Your task to perform on an android device: What's the weather today? Image 0: 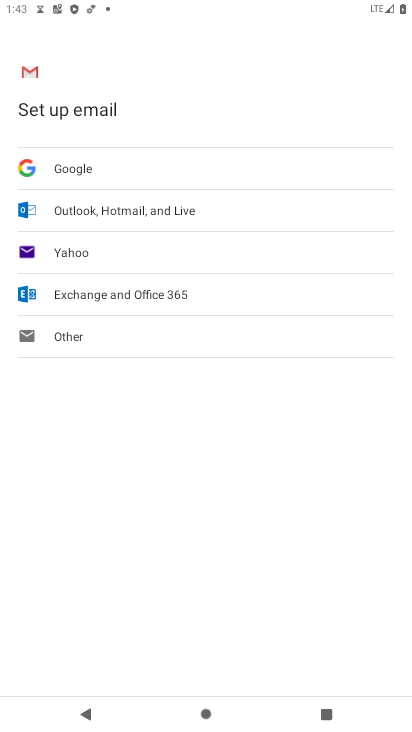
Step 0: press home button
Your task to perform on an android device: What's the weather today? Image 1: 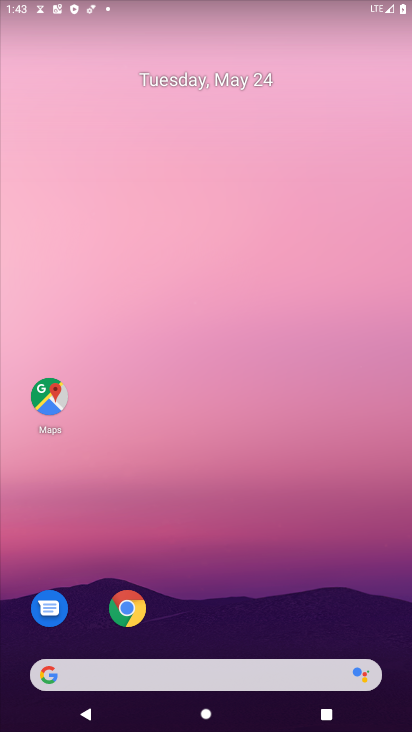
Step 1: drag from (239, 630) to (229, 157)
Your task to perform on an android device: What's the weather today? Image 2: 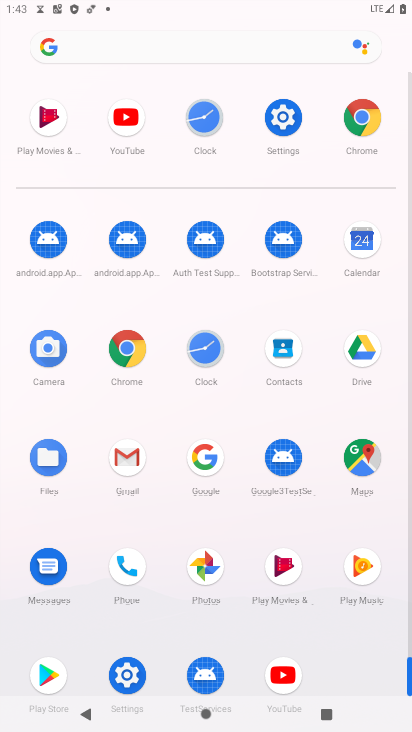
Step 2: click (362, 121)
Your task to perform on an android device: What's the weather today? Image 3: 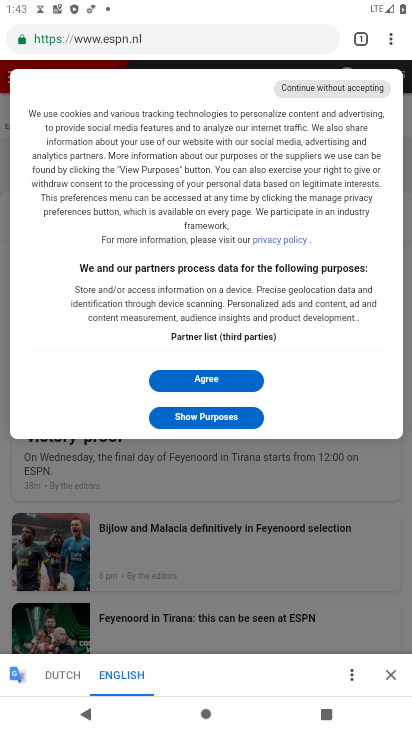
Step 3: click (194, 33)
Your task to perform on an android device: What's the weather today? Image 4: 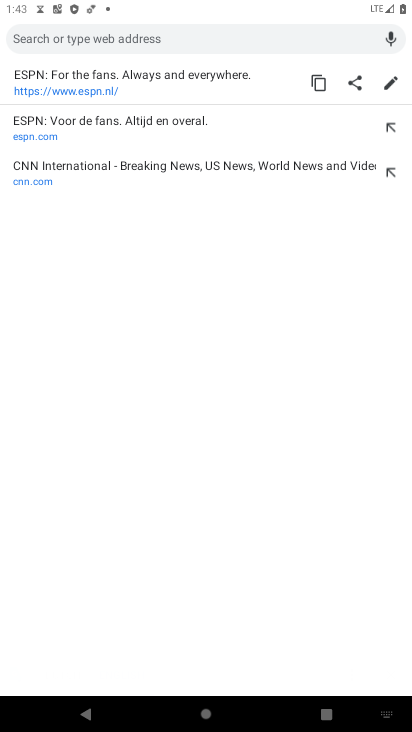
Step 4: type "What's the weather today?"
Your task to perform on an android device: What's the weather today? Image 5: 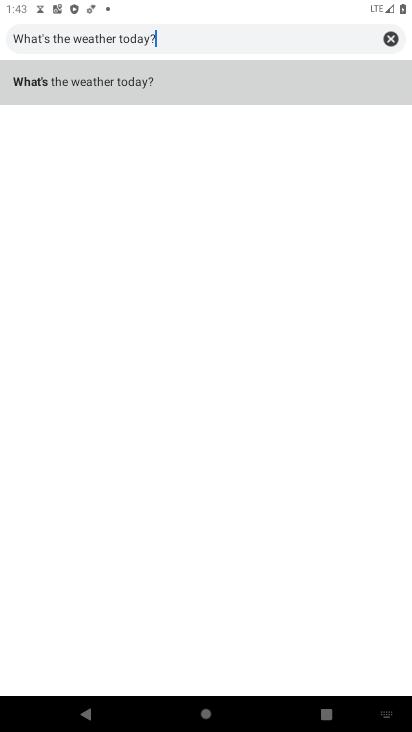
Step 5: click (112, 81)
Your task to perform on an android device: What's the weather today? Image 6: 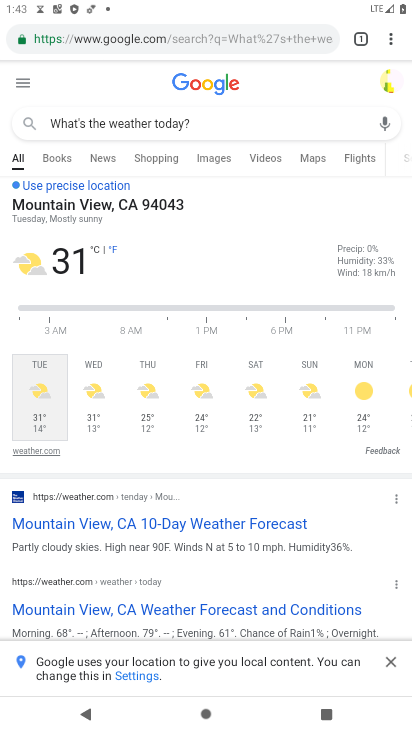
Step 6: task complete